Your task to perform on an android device: turn pop-ups off in chrome Image 0: 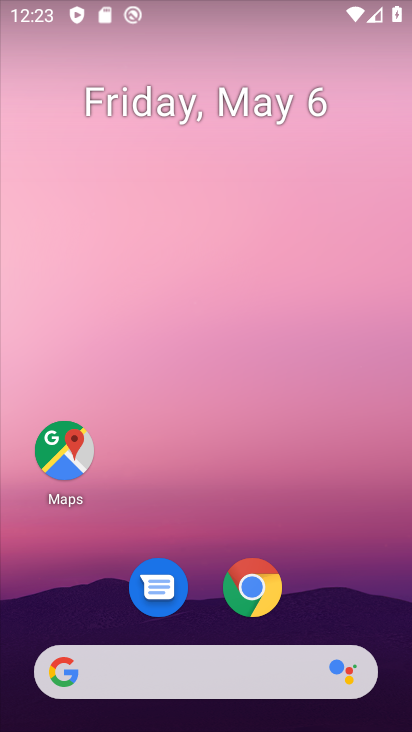
Step 0: click (246, 573)
Your task to perform on an android device: turn pop-ups off in chrome Image 1: 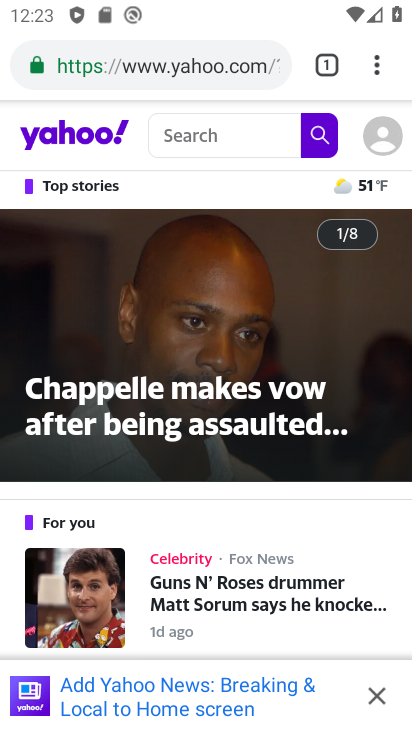
Step 1: click (374, 63)
Your task to perform on an android device: turn pop-ups off in chrome Image 2: 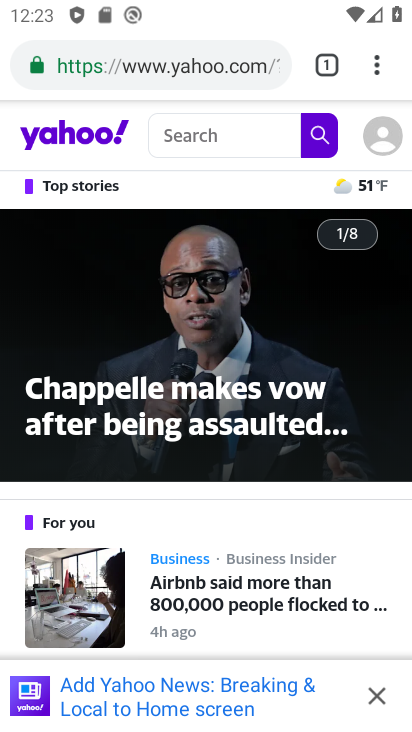
Step 2: click (374, 67)
Your task to perform on an android device: turn pop-ups off in chrome Image 3: 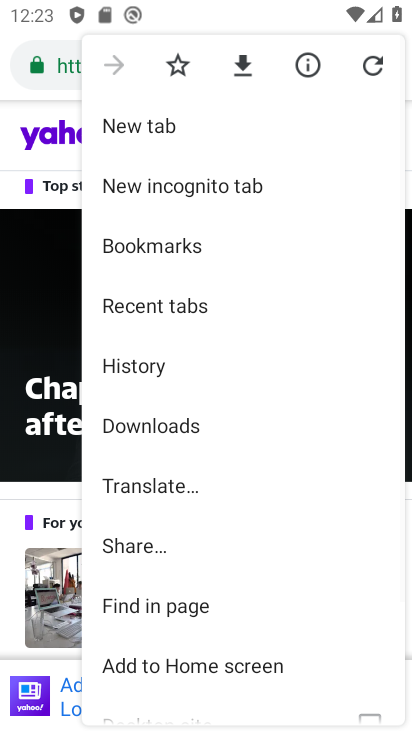
Step 3: drag from (150, 601) to (218, 302)
Your task to perform on an android device: turn pop-ups off in chrome Image 4: 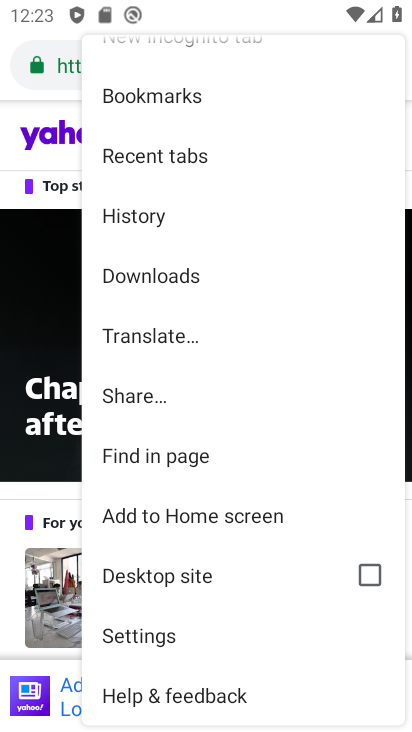
Step 4: click (135, 621)
Your task to perform on an android device: turn pop-ups off in chrome Image 5: 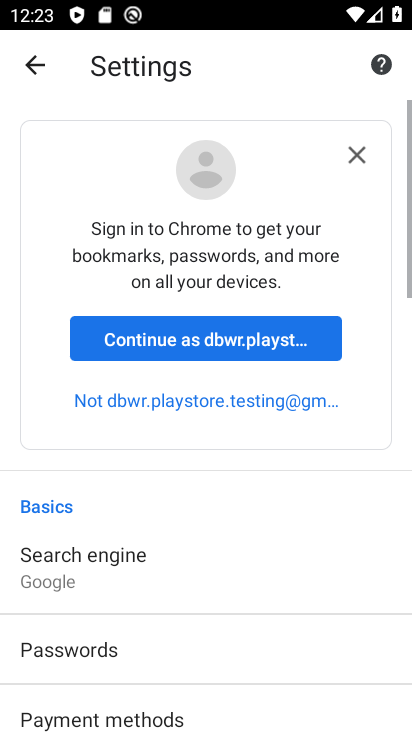
Step 5: drag from (103, 665) to (232, 323)
Your task to perform on an android device: turn pop-ups off in chrome Image 6: 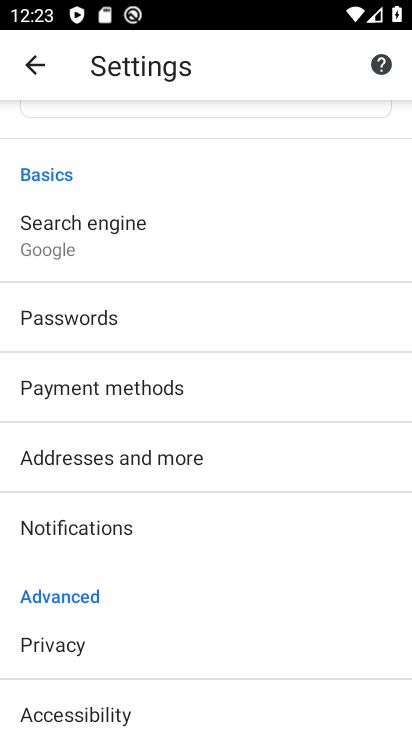
Step 6: drag from (98, 650) to (181, 260)
Your task to perform on an android device: turn pop-ups off in chrome Image 7: 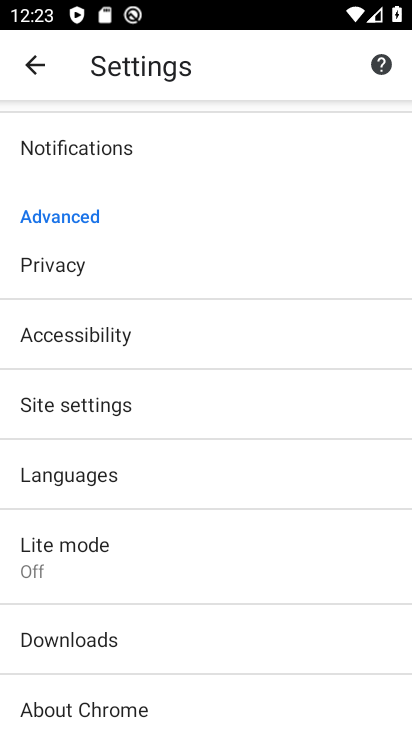
Step 7: click (80, 411)
Your task to perform on an android device: turn pop-ups off in chrome Image 8: 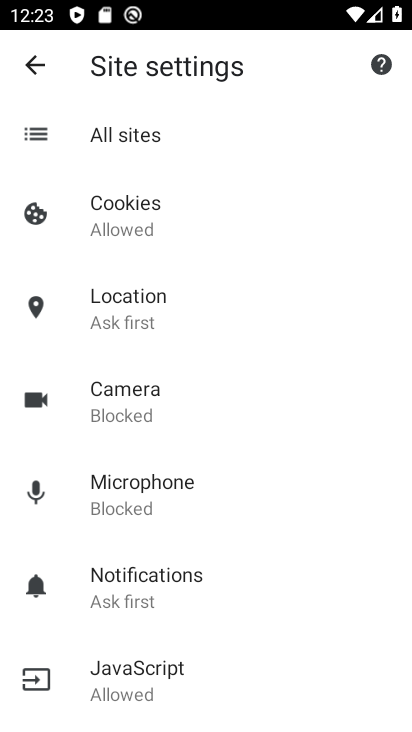
Step 8: drag from (149, 620) to (222, 355)
Your task to perform on an android device: turn pop-ups off in chrome Image 9: 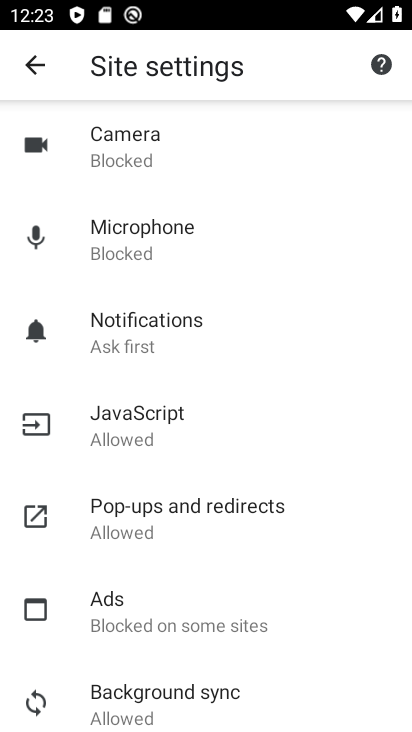
Step 9: click (154, 523)
Your task to perform on an android device: turn pop-ups off in chrome Image 10: 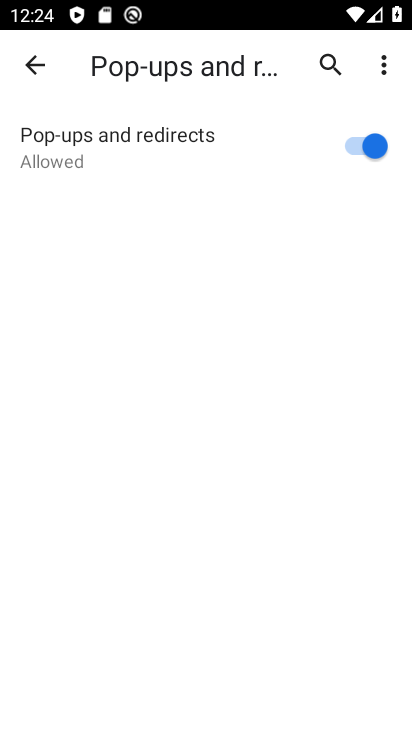
Step 10: click (379, 147)
Your task to perform on an android device: turn pop-ups off in chrome Image 11: 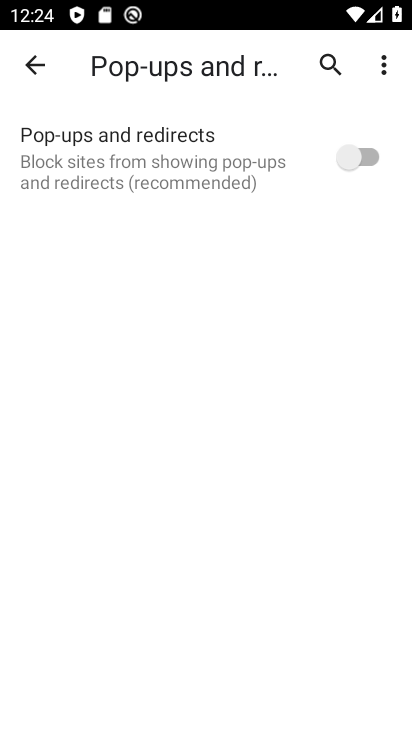
Step 11: task complete